Your task to perform on an android device: Open the calendar app, open the side menu, and click the "Day" option Image 0: 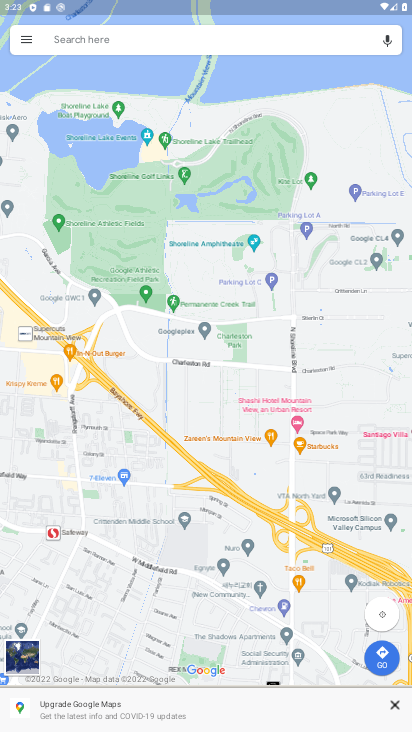
Step 0: press home button
Your task to perform on an android device: Open the calendar app, open the side menu, and click the "Day" option Image 1: 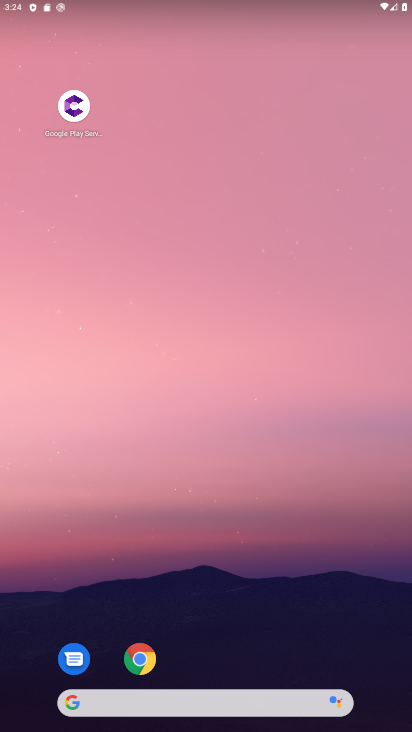
Step 1: drag from (211, 611) to (214, 127)
Your task to perform on an android device: Open the calendar app, open the side menu, and click the "Day" option Image 2: 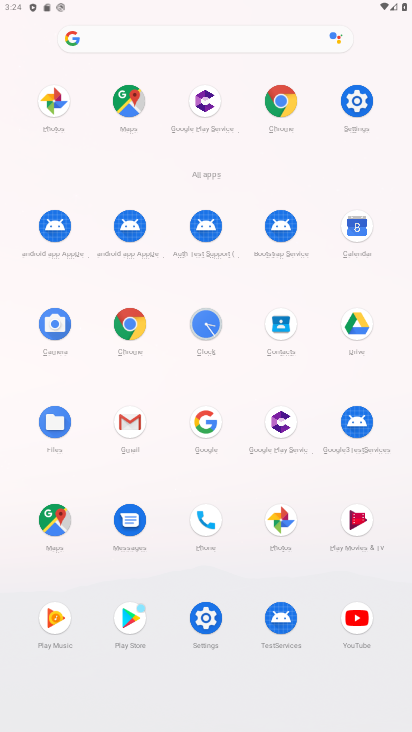
Step 2: click (360, 237)
Your task to perform on an android device: Open the calendar app, open the side menu, and click the "Day" option Image 3: 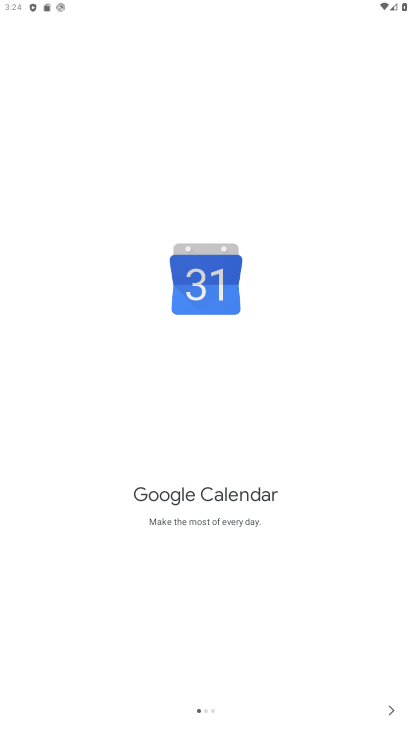
Step 3: click (395, 715)
Your task to perform on an android device: Open the calendar app, open the side menu, and click the "Day" option Image 4: 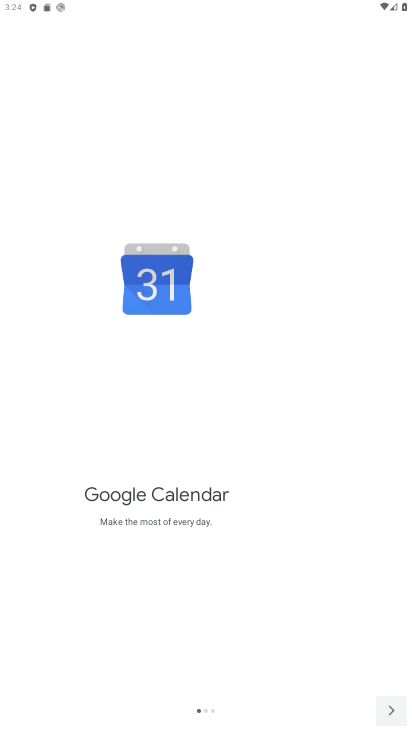
Step 4: click (395, 715)
Your task to perform on an android device: Open the calendar app, open the side menu, and click the "Day" option Image 5: 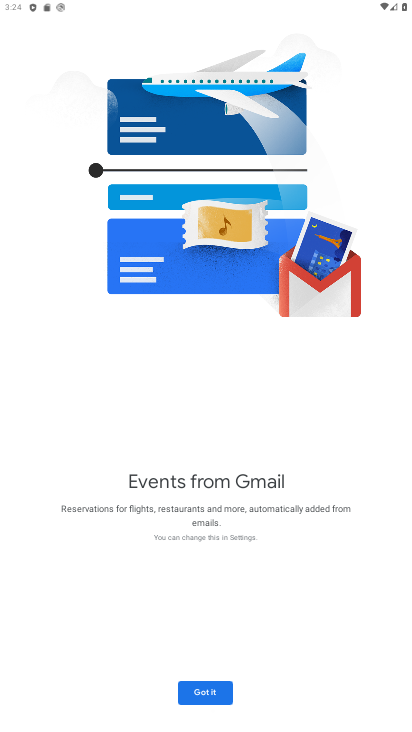
Step 5: click (395, 715)
Your task to perform on an android device: Open the calendar app, open the side menu, and click the "Day" option Image 6: 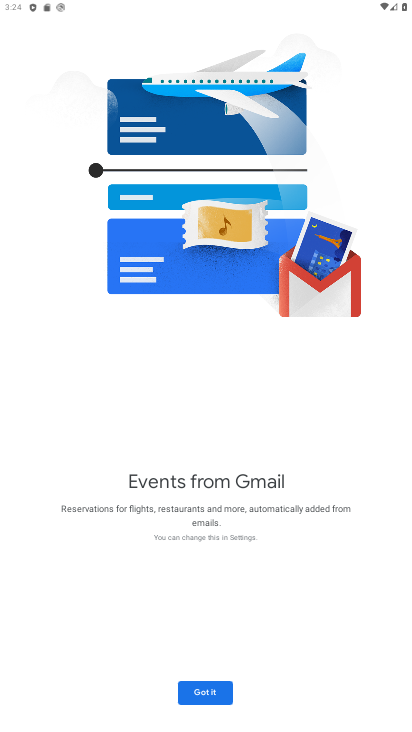
Step 6: click (213, 676)
Your task to perform on an android device: Open the calendar app, open the side menu, and click the "Day" option Image 7: 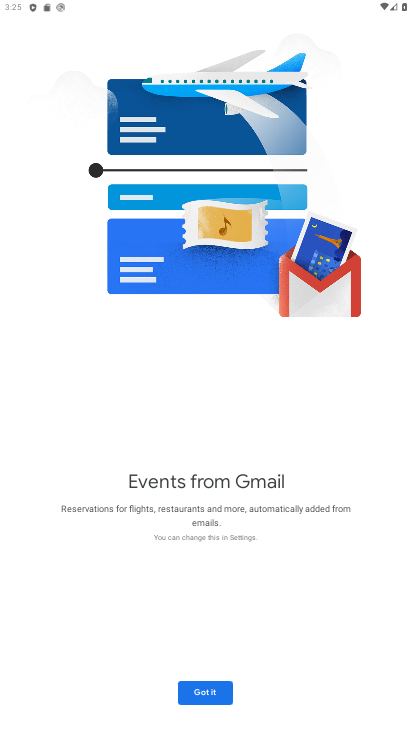
Step 7: click (224, 693)
Your task to perform on an android device: Open the calendar app, open the side menu, and click the "Day" option Image 8: 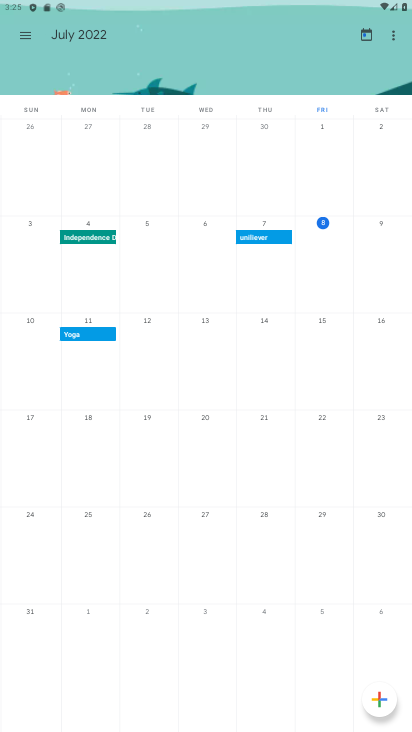
Step 8: click (17, 36)
Your task to perform on an android device: Open the calendar app, open the side menu, and click the "Day" option Image 9: 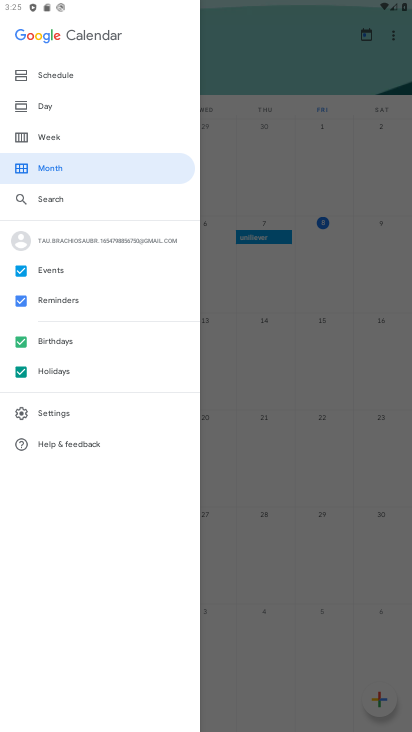
Step 9: click (39, 102)
Your task to perform on an android device: Open the calendar app, open the side menu, and click the "Day" option Image 10: 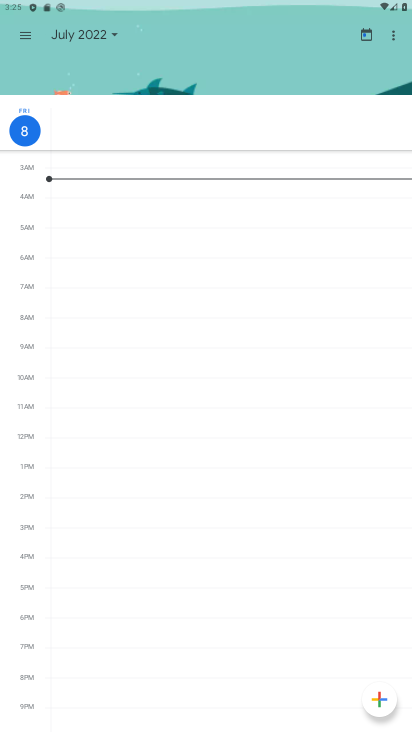
Step 10: task complete